Your task to perform on an android device: Search for pizza restaurants on Maps Image 0: 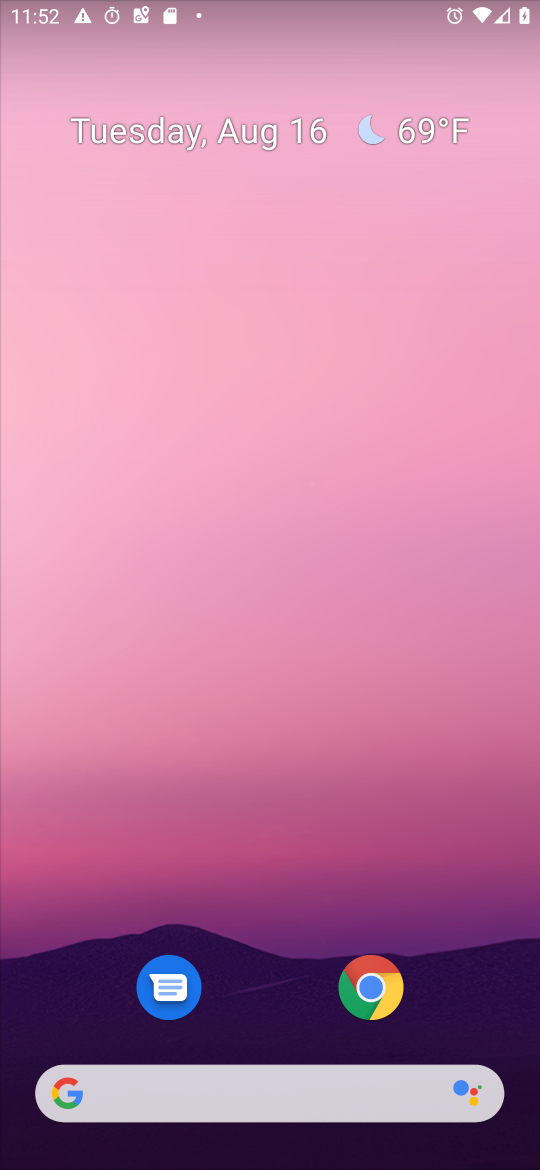
Step 0: drag from (24, 1132) to (355, 520)
Your task to perform on an android device: Search for pizza restaurants on Maps Image 1: 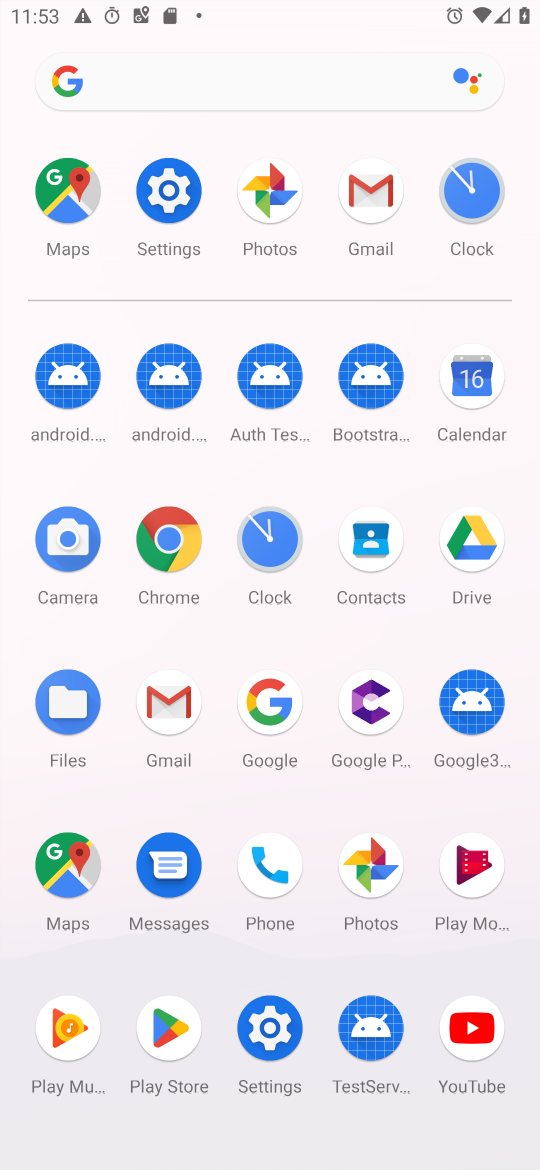
Step 1: click (81, 911)
Your task to perform on an android device: Search for pizza restaurants on Maps Image 2: 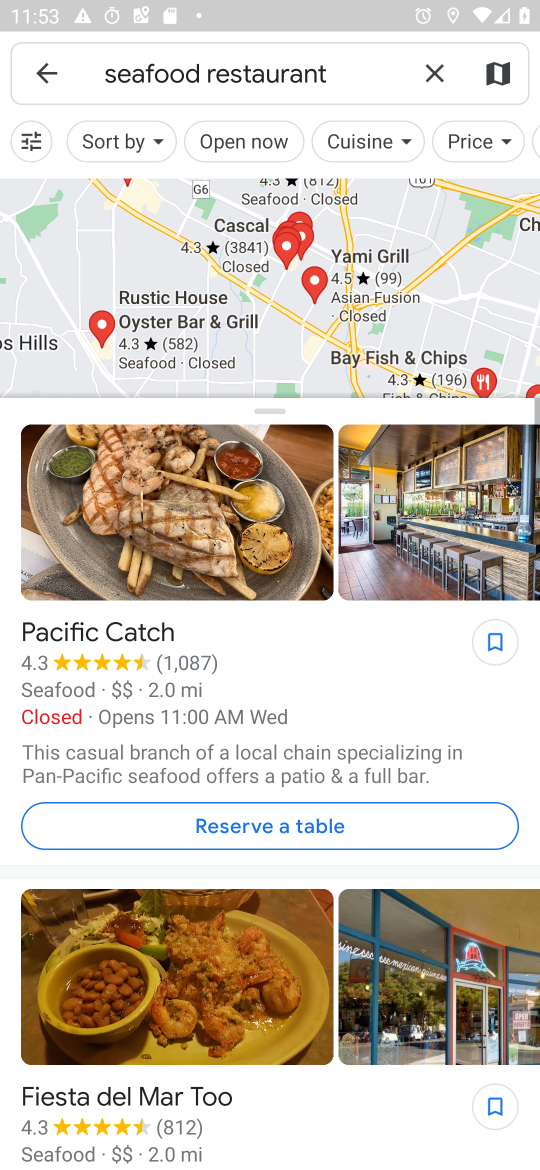
Step 2: click (56, 75)
Your task to perform on an android device: Search for pizza restaurants on Maps Image 3: 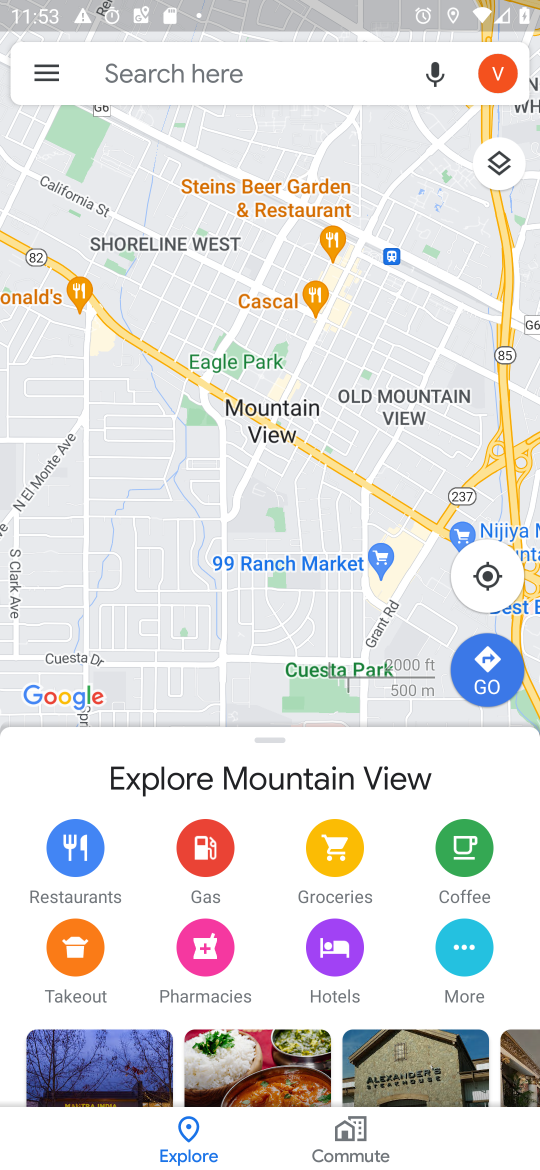
Step 3: click (144, 63)
Your task to perform on an android device: Search for pizza restaurants on Maps Image 4: 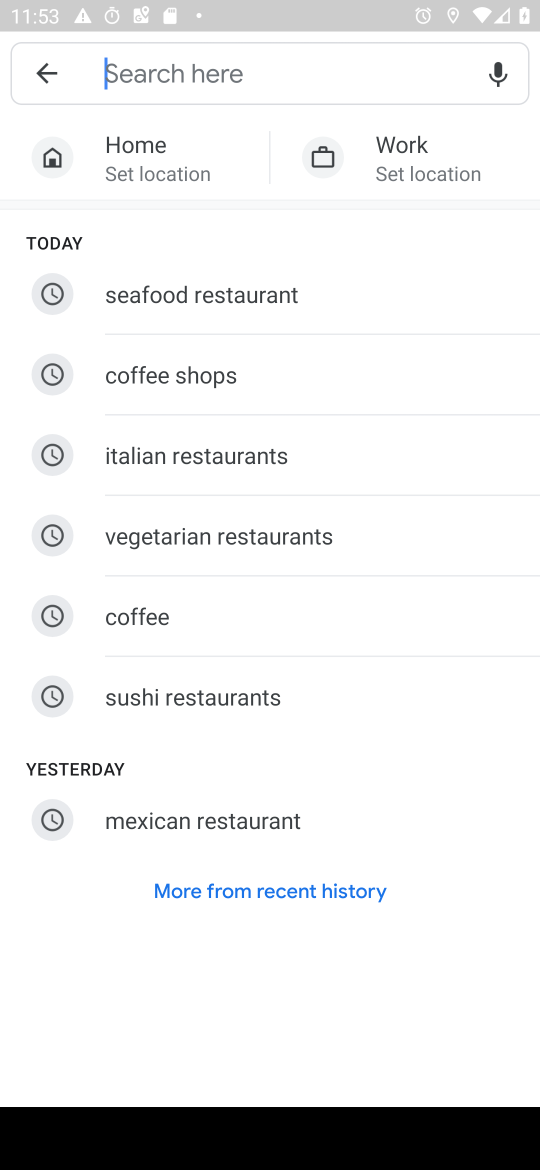
Step 4: type "pizza restaurants"
Your task to perform on an android device: Search for pizza restaurants on Maps Image 5: 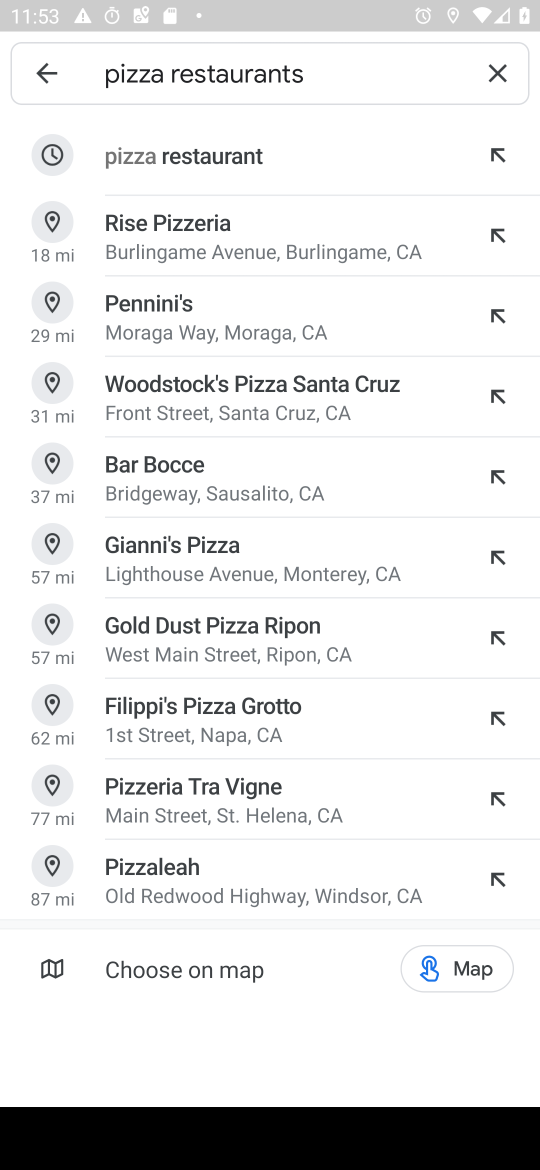
Step 5: type ""
Your task to perform on an android device: Search for pizza restaurants on Maps Image 6: 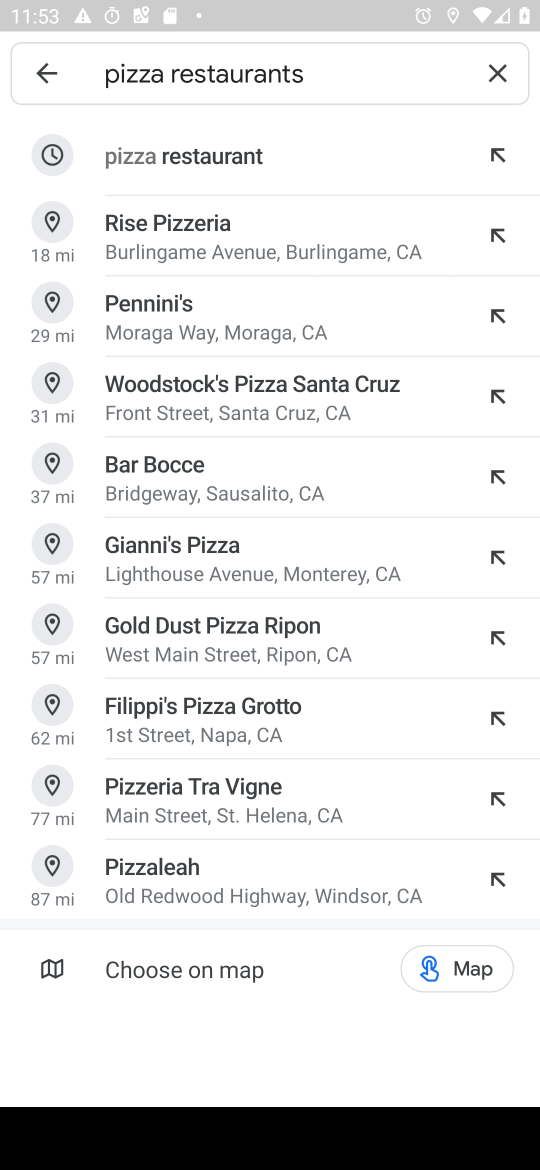
Step 6: task complete